Your task to perform on an android device: Is it going to rain tomorrow? Image 0: 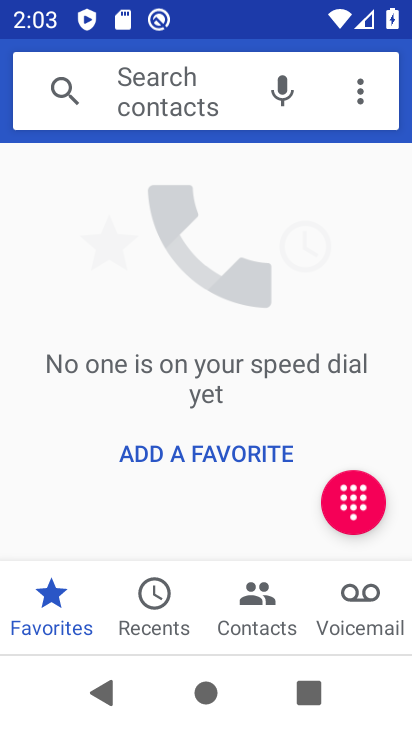
Step 0: press home button
Your task to perform on an android device: Is it going to rain tomorrow? Image 1: 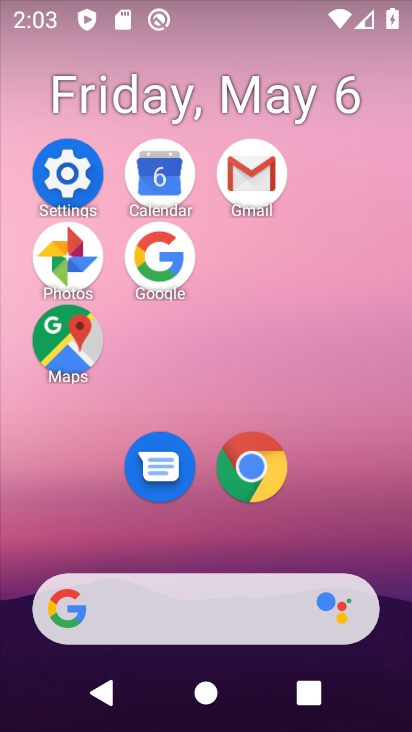
Step 1: click (153, 261)
Your task to perform on an android device: Is it going to rain tomorrow? Image 2: 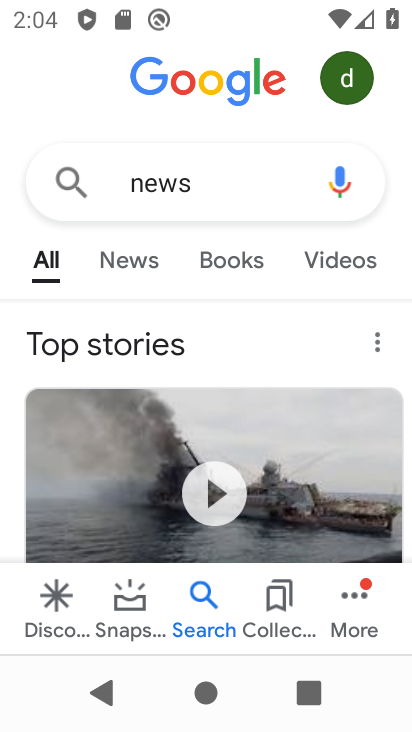
Step 2: click (224, 194)
Your task to perform on an android device: Is it going to rain tomorrow? Image 3: 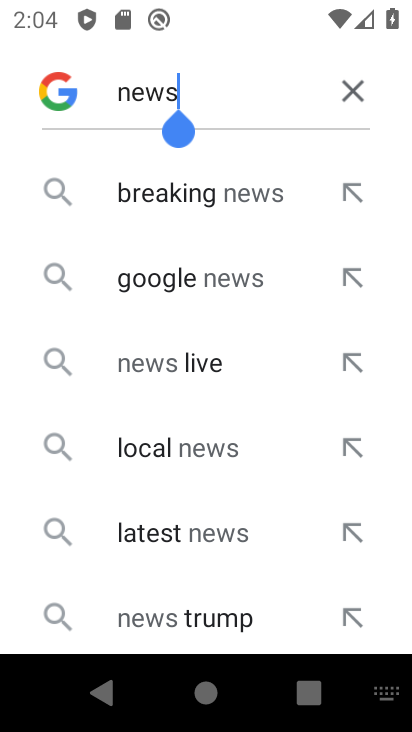
Step 3: click (345, 90)
Your task to perform on an android device: Is it going to rain tomorrow? Image 4: 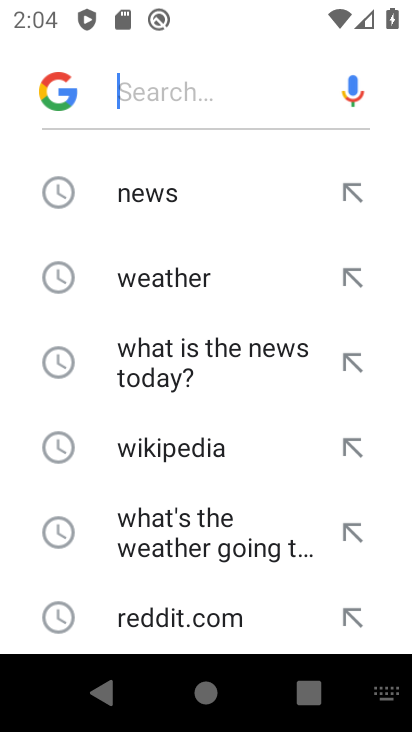
Step 4: click (183, 264)
Your task to perform on an android device: Is it going to rain tomorrow? Image 5: 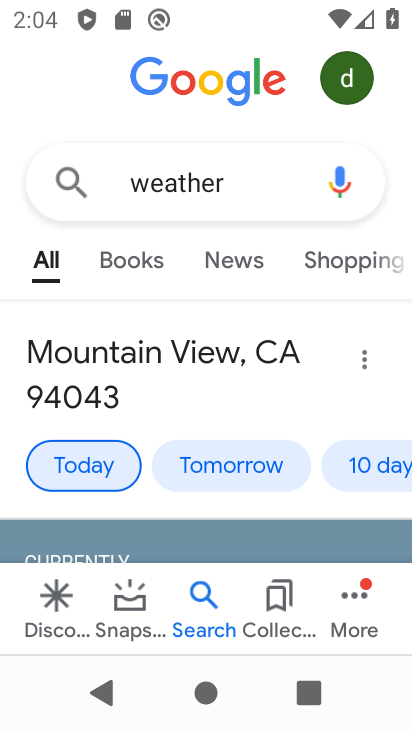
Step 5: click (240, 471)
Your task to perform on an android device: Is it going to rain tomorrow? Image 6: 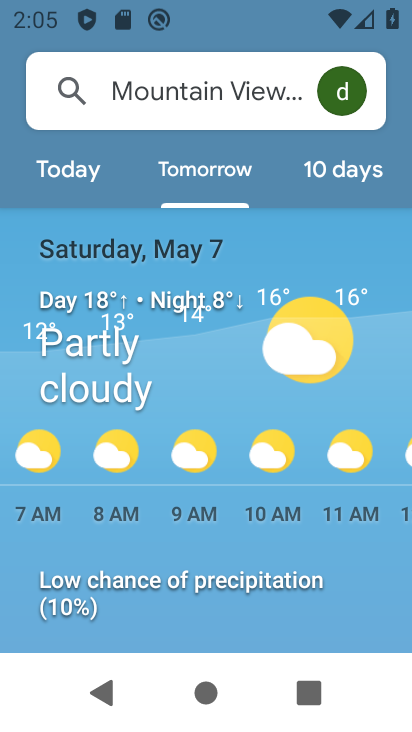
Step 6: task complete